Your task to perform on an android device: When is my next meeting? Image 0: 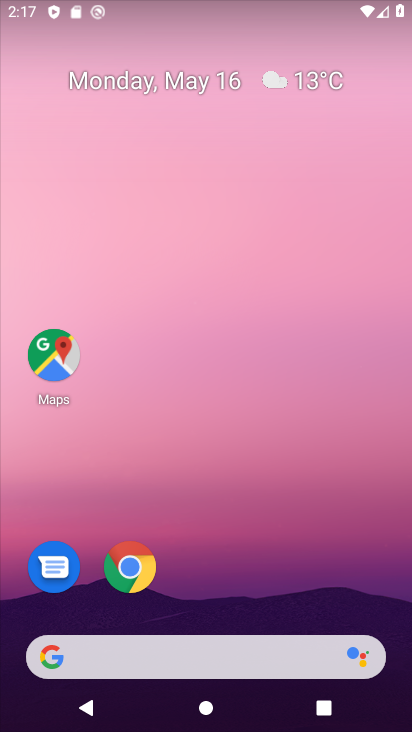
Step 0: drag from (305, 537) to (251, 48)
Your task to perform on an android device: When is my next meeting? Image 1: 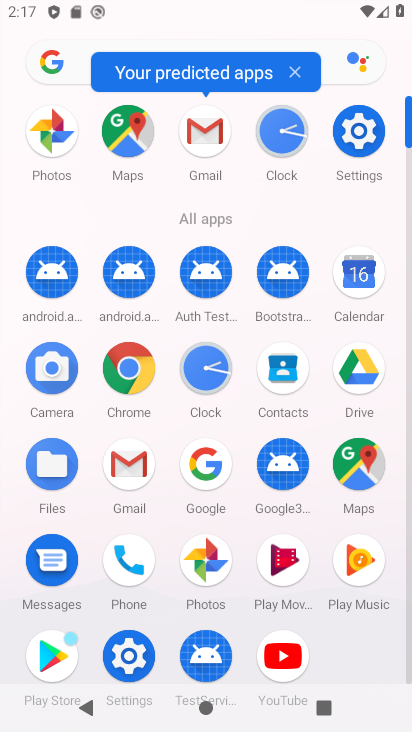
Step 1: click (368, 272)
Your task to perform on an android device: When is my next meeting? Image 2: 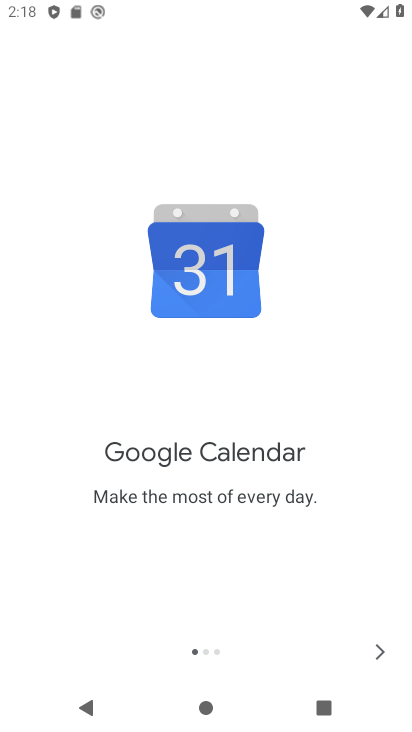
Step 2: click (376, 652)
Your task to perform on an android device: When is my next meeting? Image 3: 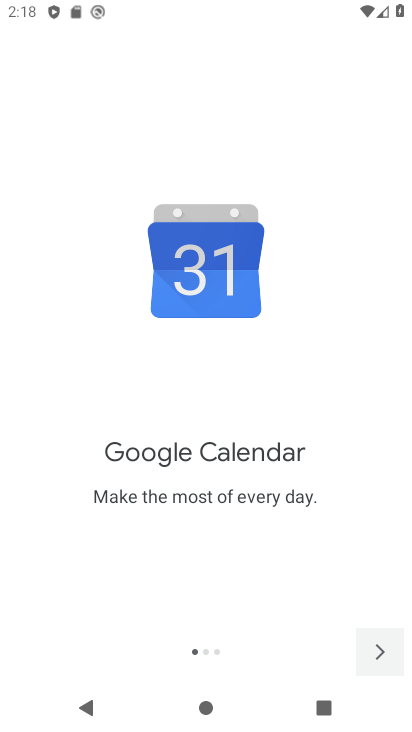
Step 3: click (375, 651)
Your task to perform on an android device: When is my next meeting? Image 4: 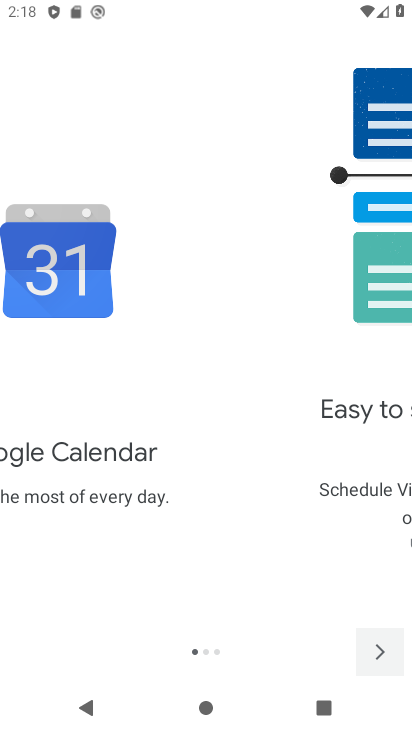
Step 4: click (375, 650)
Your task to perform on an android device: When is my next meeting? Image 5: 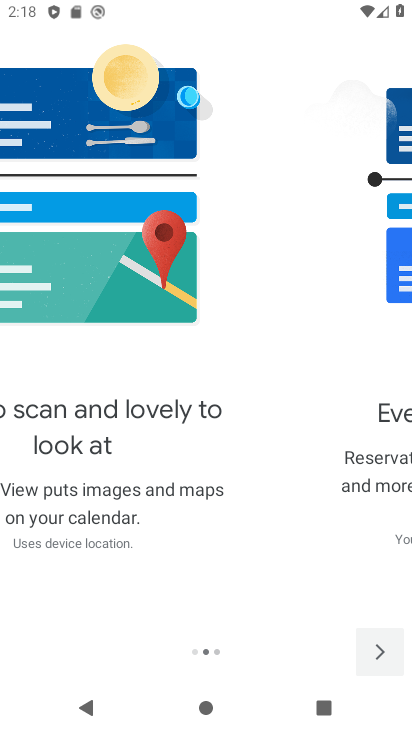
Step 5: click (375, 650)
Your task to perform on an android device: When is my next meeting? Image 6: 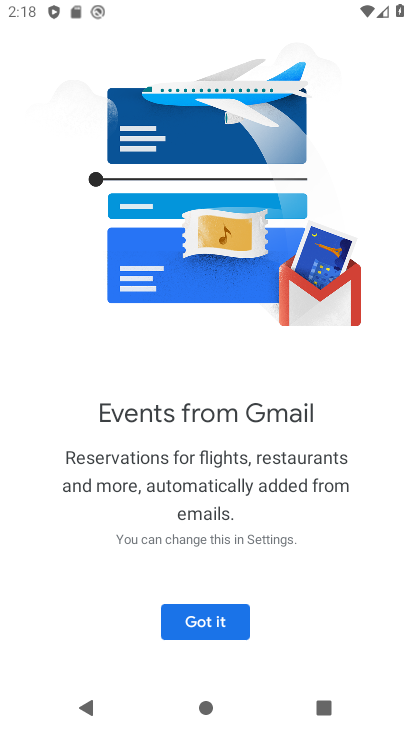
Step 6: click (375, 648)
Your task to perform on an android device: When is my next meeting? Image 7: 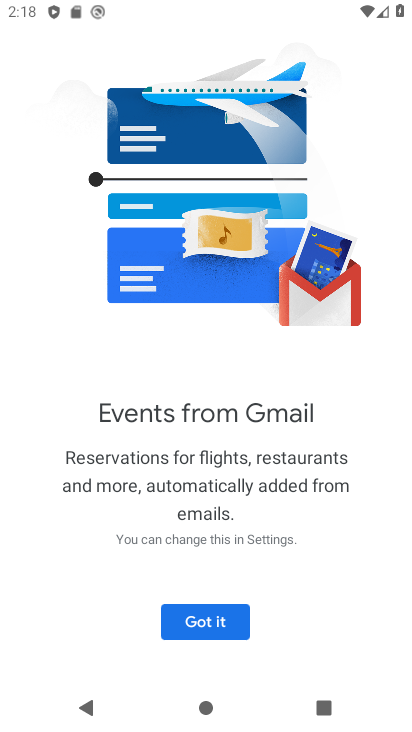
Step 7: click (229, 621)
Your task to perform on an android device: When is my next meeting? Image 8: 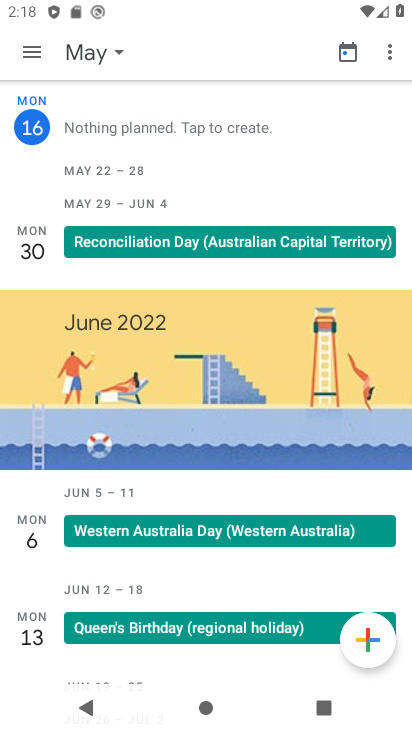
Step 8: click (88, 57)
Your task to perform on an android device: When is my next meeting? Image 9: 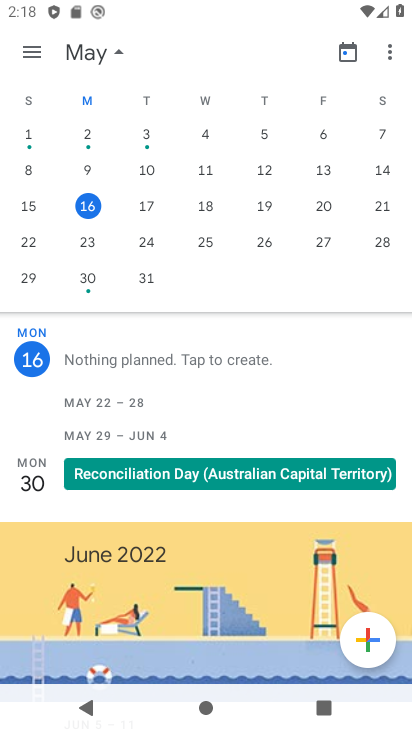
Step 9: drag from (234, 424) to (312, 8)
Your task to perform on an android device: When is my next meeting? Image 10: 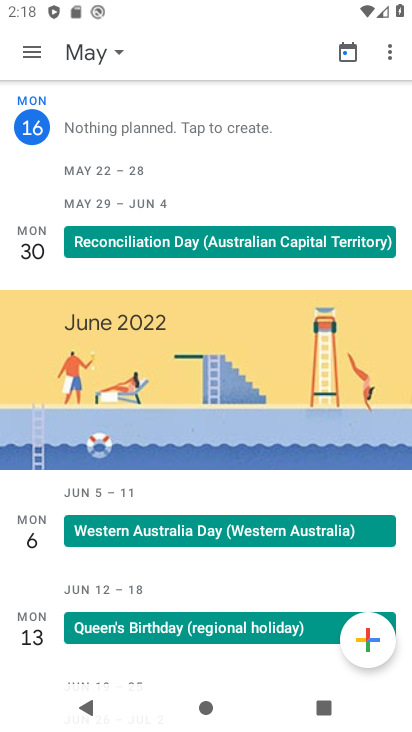
Step 10: click (244, 160)
Your task to perform on an android device: When is my next meeting? Image 11: 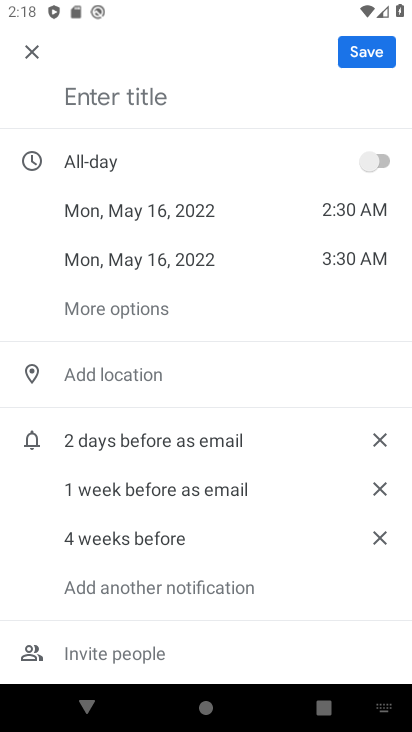
Step 11: click (25, 44)
Your task to perform on an android device: When is my next meeting? Image 12: 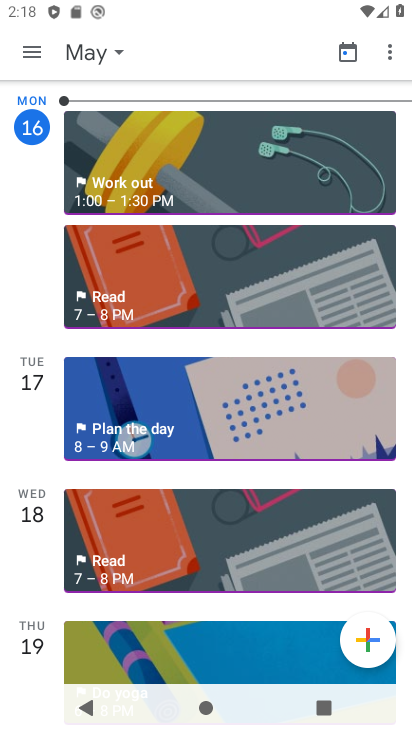
Step 12: task complete